Your task to perform on an android device: Open accessibility settings Image 0: 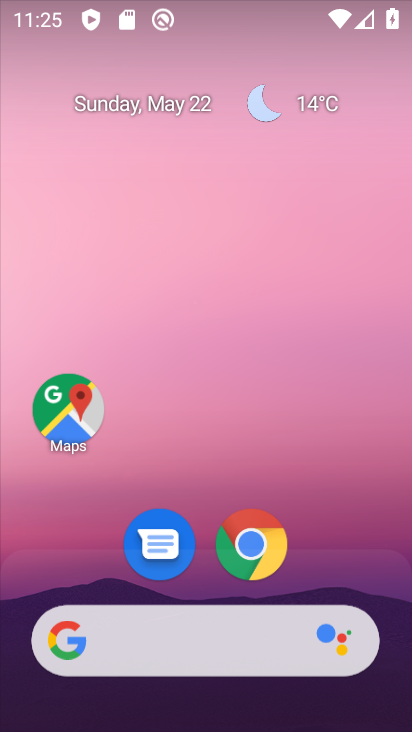
Step 0: drag from (305, 551) to (260, 213)
Your task to perform on an android device: Open accessibility settings Image 1: 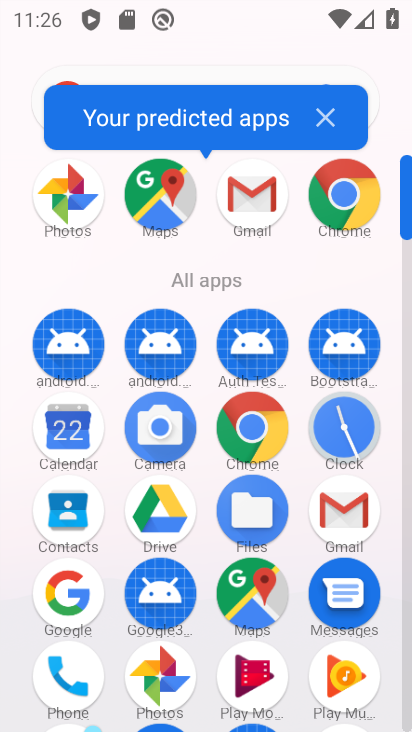
Step 1: drag from (215, 680) to (212, 433)
Your task to perform on an android device: Open accessibility settings Image 2: 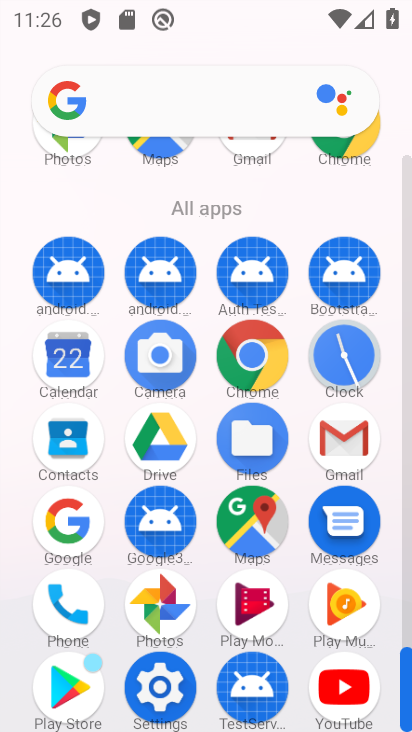
Step 2: click (140, 707)
Your task to perform on an android device: Open accessibility settings Image 3: 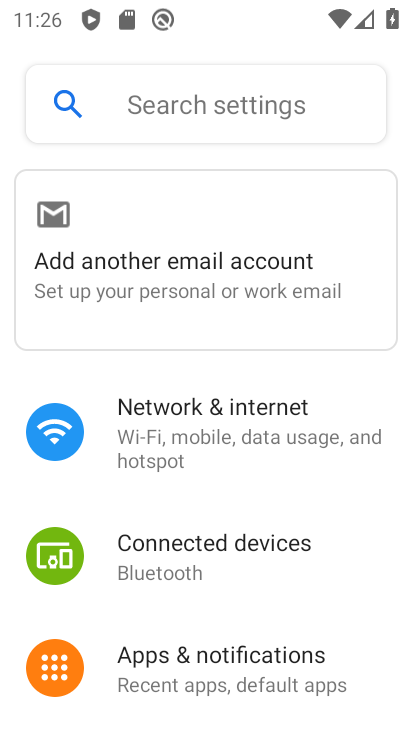
Step 3: drag from (227, 684) to (214, 518)
Your task to perform on an android device: Open accessibility settings Image 4: 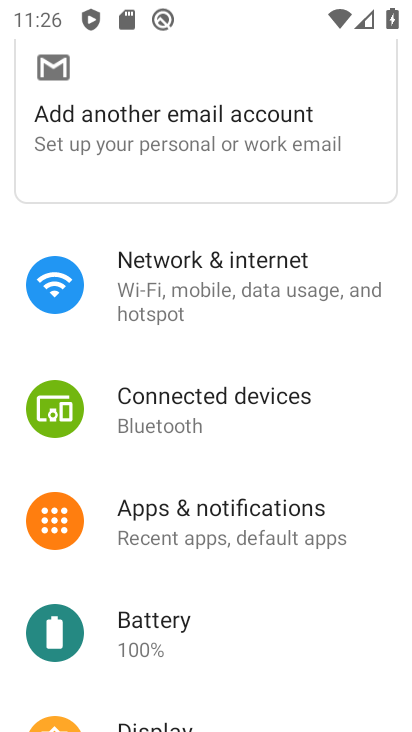
Step 4: drag from (177, 624) to (209, 375)
Your task to perform on an android device: Open accessibility settings Image 5: 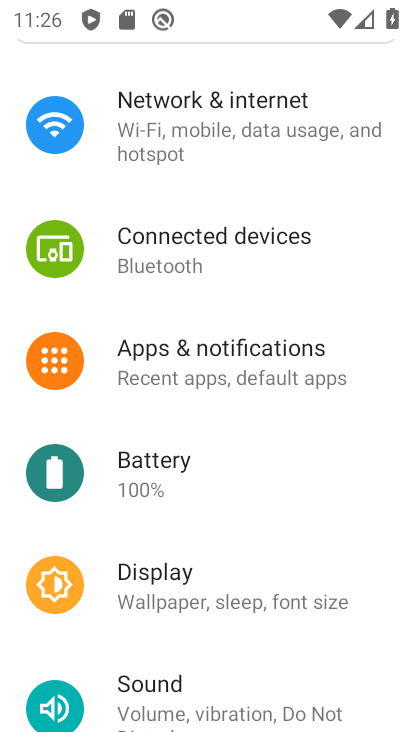
Step 5: drag from (177, 518) to (176, 397)
Your task to perform on an android device: Open accessibility settings Image 6: 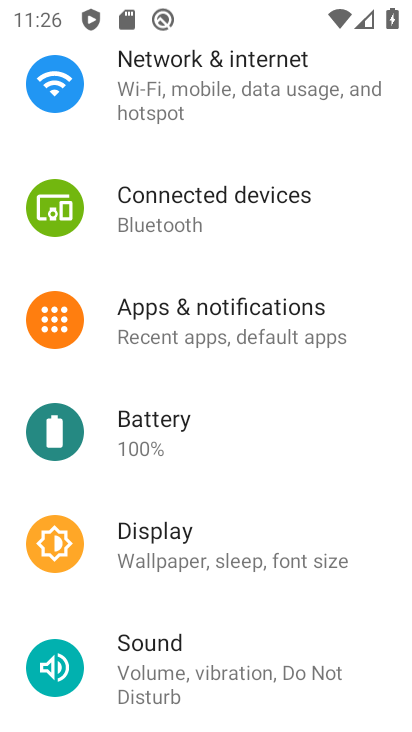
Step 6: drag from (194, 553) to (191, 340)
Your task to perform on an android device: Open accessibility settings Image 7: 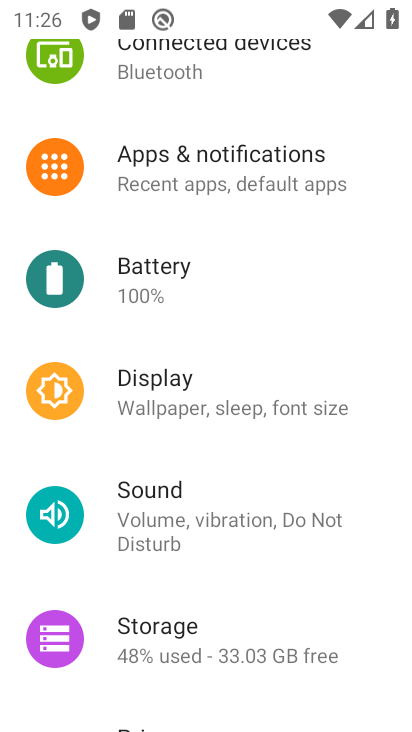
Step 7: drag from (198, 561) to (209, 344)
Your task to perform on an android device: Open accessibility settings Image 8: 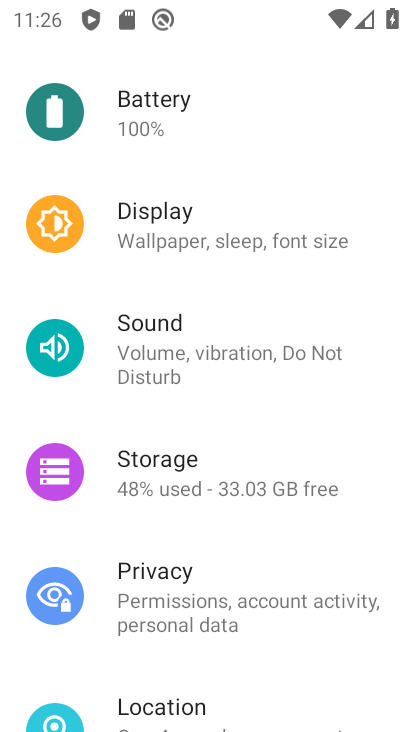
Step 8: drag from (204, 655) to (202, 449)
Your task to perform on an android device: Open accessibility settings Image 9: 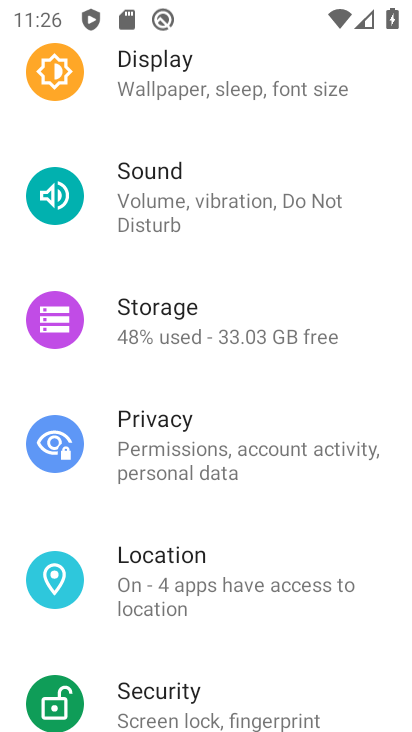
Step 9: drag from (234, 667) to (232, 511)
Your task to perform on an android device: Open accessibility settings Image 10: 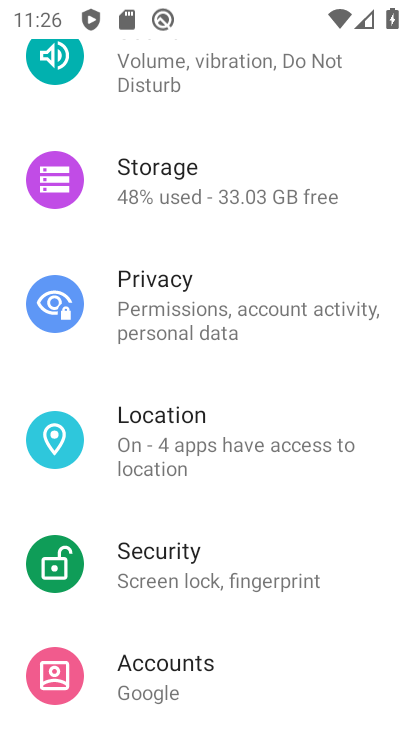
Step 10: drag from (220, 632) to (216, 355)
Your task to perform on an android device: Open accessibility settings Image 11: 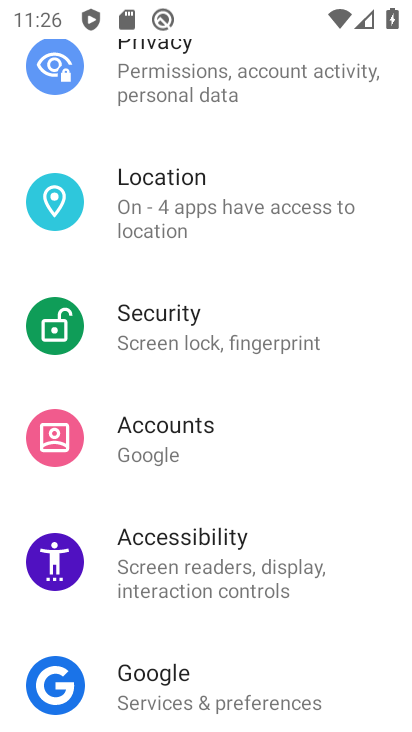
Step 11: click (205, 581)
Your task to perform on an android device: Open accessibility settings Image 12: 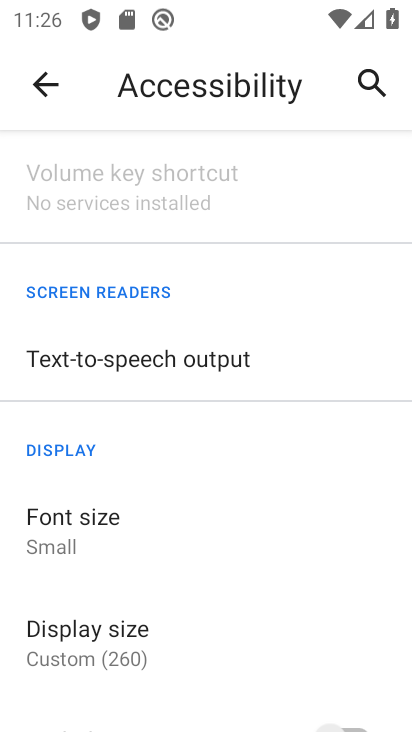
Step 12: task complete